Your task to perform on an android device: change your default location settings in chrome Image 0: 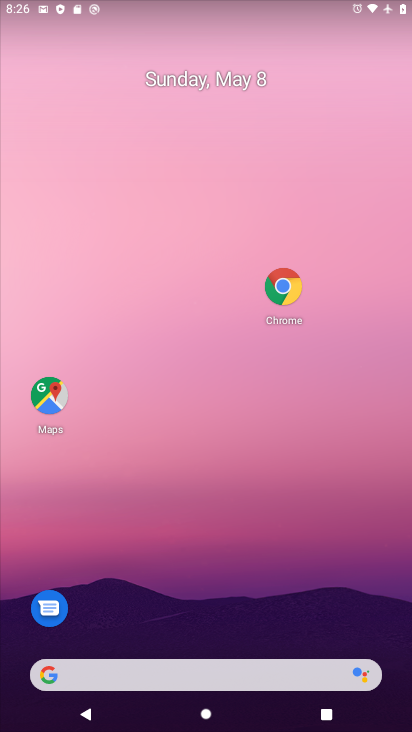
Step 0: click (285, 292)
Your task to perform on an android device: change your default location settings in chrome Image 1: 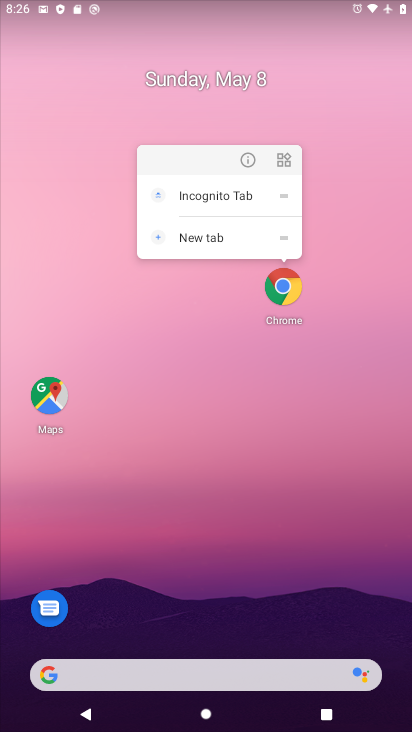
Step 1: click (286, 298)
Your task to perform on an android device: change your default location settings in chrome Image 2: 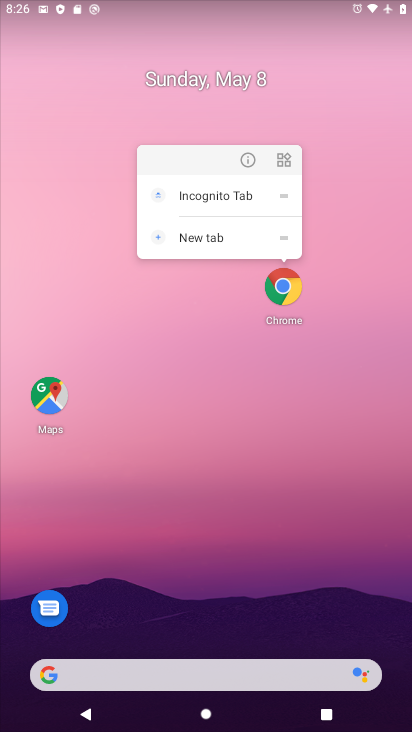
Step 2: click (286, 285)
Your task to perform on an android device: change your default location settings in chrome Image 3: 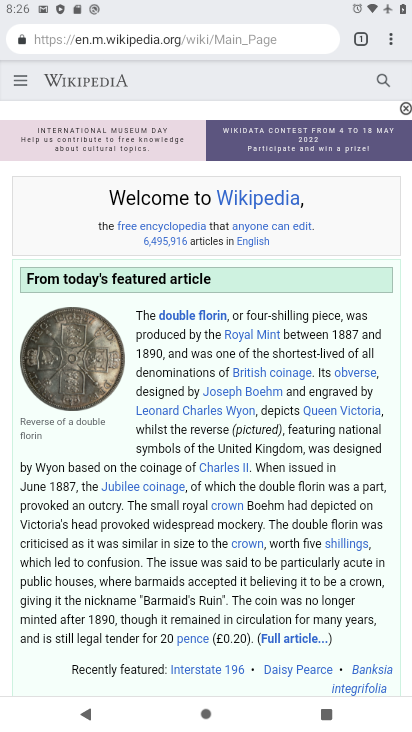
Step 3: drag from (392, 38) to (269, 471)
Your task to perform on an android device: change your default location settings in chrome Image 4: 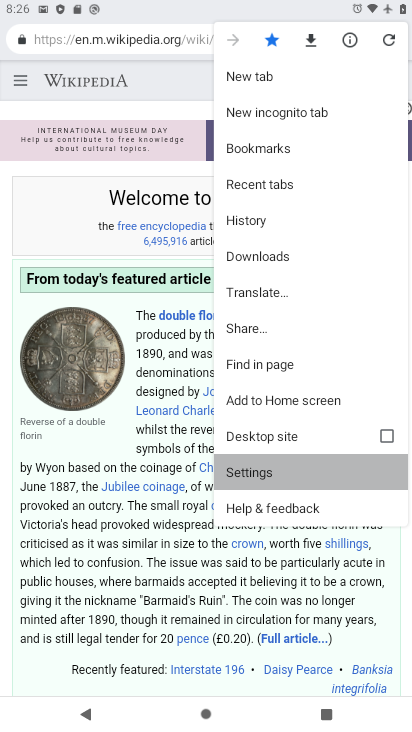
Step 4: click (269, 471)
Your task to perform on an android device: change your default location settings in chrome Image 5: 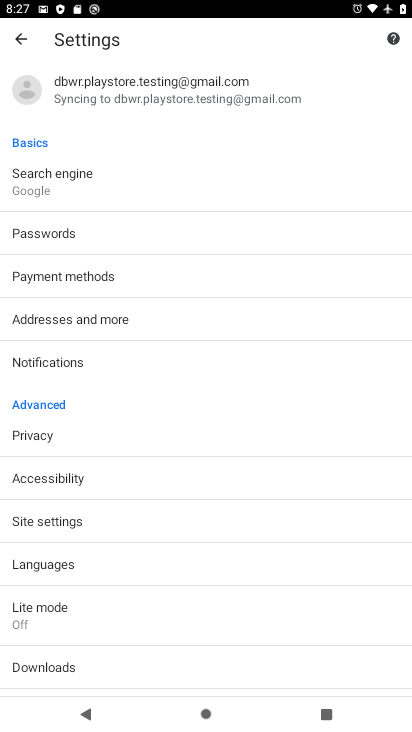
Step 5: click (70, 522)
Your task to perform on an android device: change your default location settings in chrome Image 6: 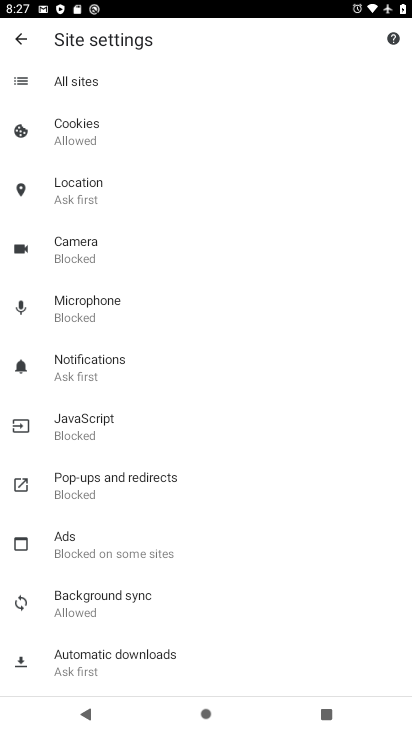
Step 6: click (97, 186)
Your task to perform on an android device: change your default location settings in chrome Image 7: 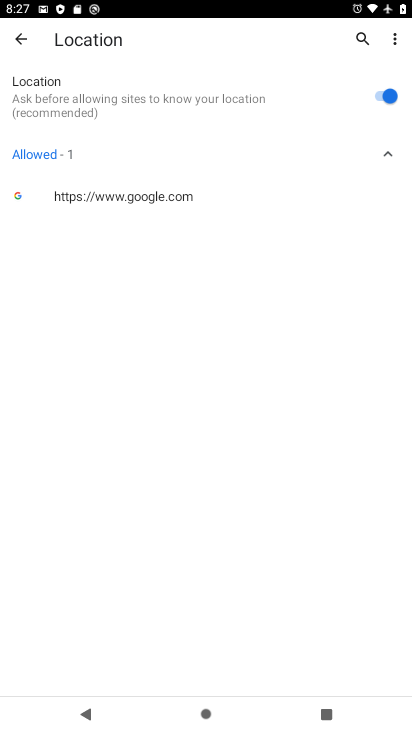
Step 7: click (379, 92)
Your task to perform on an android device: change your default location settings in chrome Image 8: 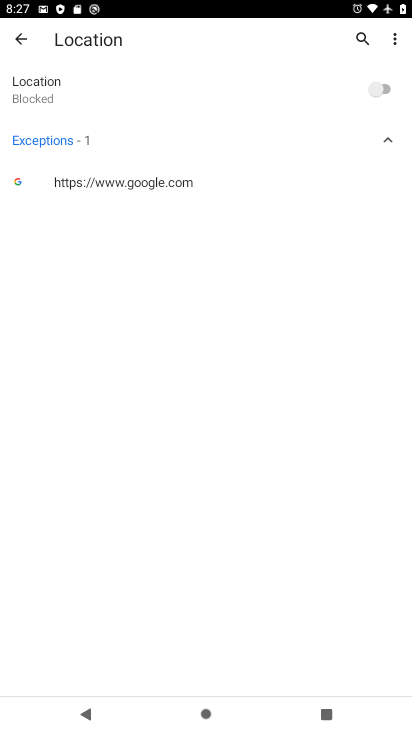
Step 8: task complete